Your task to perform on an android device: check the backup settings in the google photos Image 0: 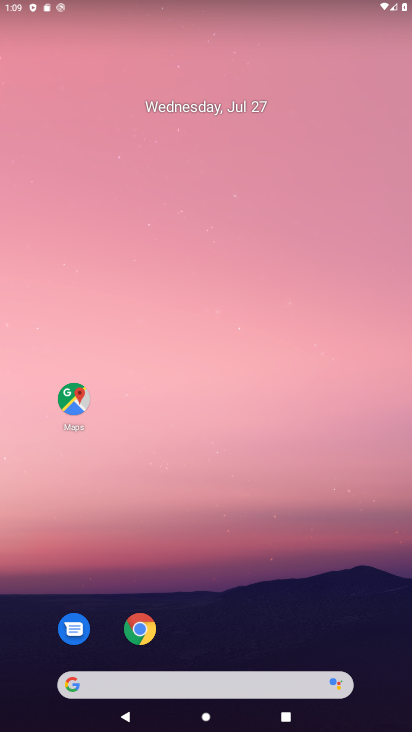
Step 0: drag from (287, 654) to (325, 64)
Your task to perform on an android device: check the backup settings in the google photos Image 1: 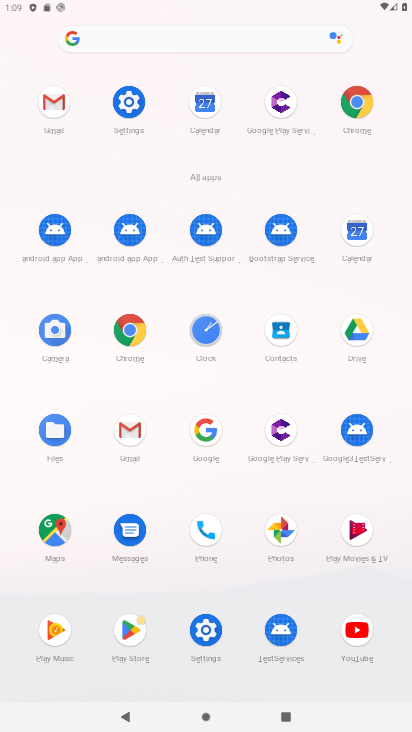
Step 1: click (283, 528)
Your task to perform on an android device: check the backup settings in the google photos Image 2: 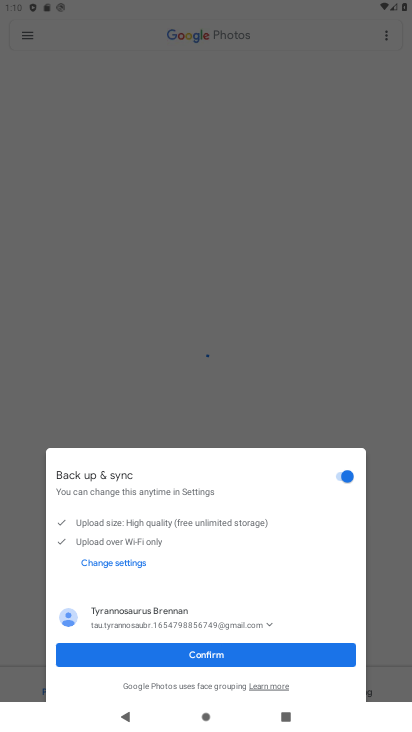
Step 2: click (247, 659)
Your task to perform on an android device: check the backup settings in the google photos Image 3: 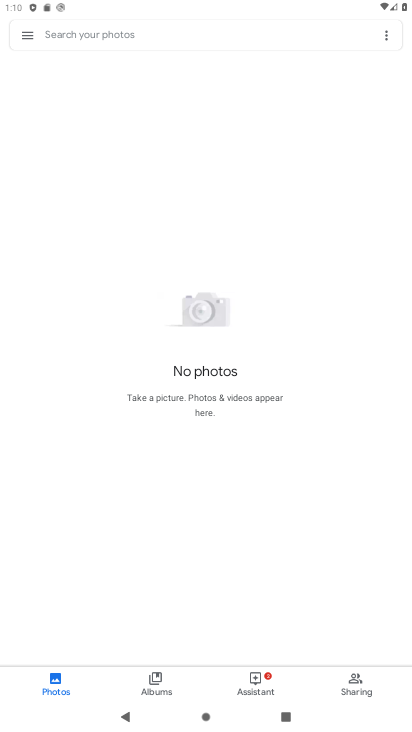
Step 3: click (29, 34)
Your task to perform on an android device: check the backup settings in the google photos Image 4: 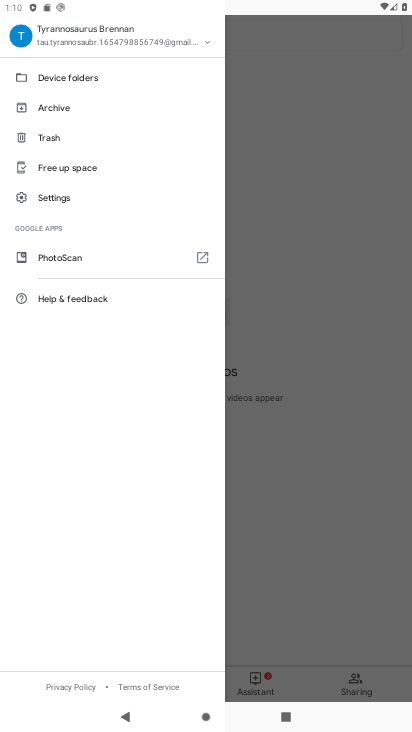
Step 4: click (53, 195)
Your task to perform on an android device: check the backup settings in the google photos Image 5: 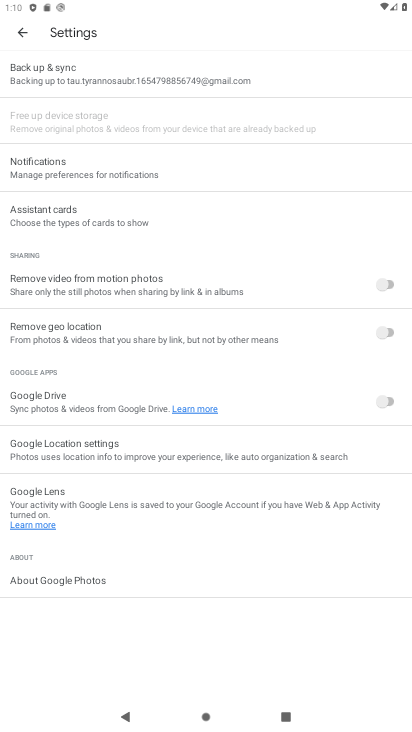
Step 5: click (46, 69)
Your task to perform on an android device: check the backup settings in the google photos Image 6: 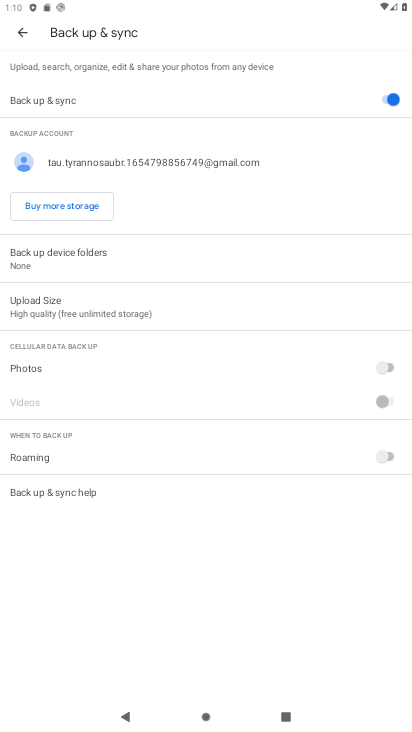
Step 6: task complete